Your task to perform on an android device: Open my contact list Image 0: 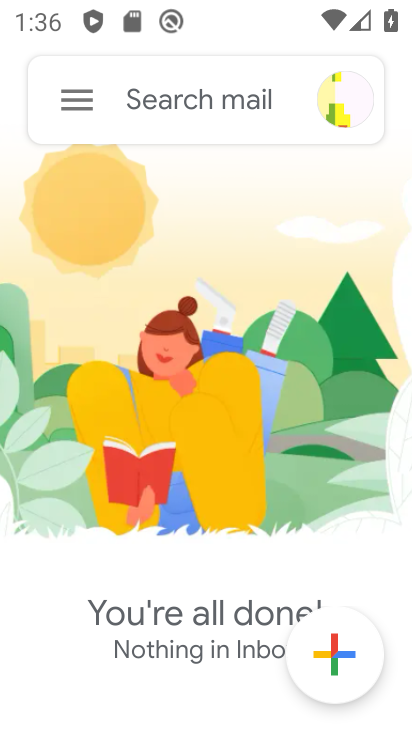
Step 0: press home button
Your task to perform on an android device: Open my contact list Image 1: 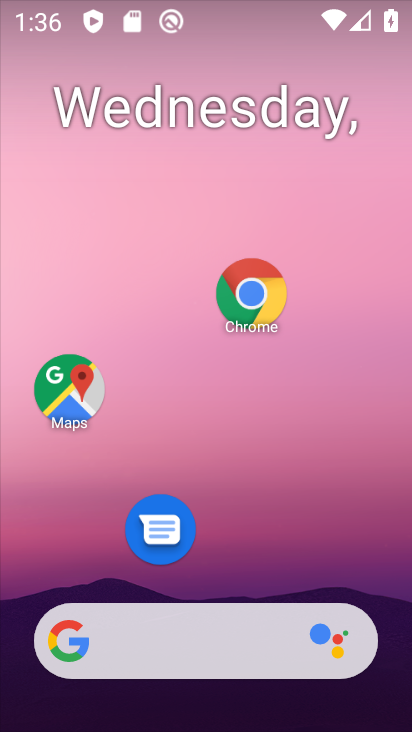
Step 1: drag from (166, 630) to (171, 180)
Your task to perform on an android device: Open my contact list Image 2: 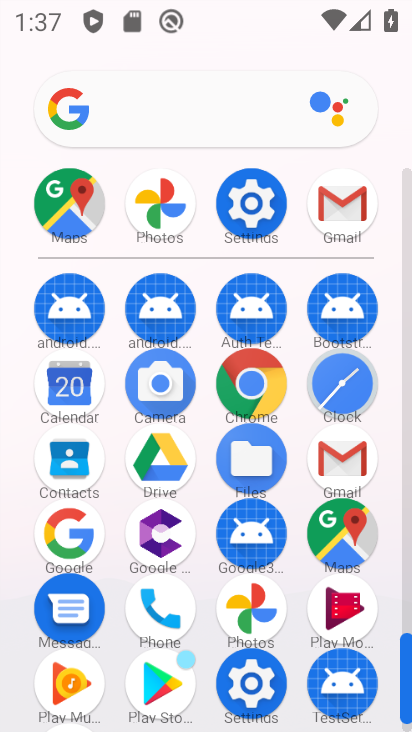
Step 2: click (79, 474)
Your task to perform on an android device: Open my contact list Image 3: 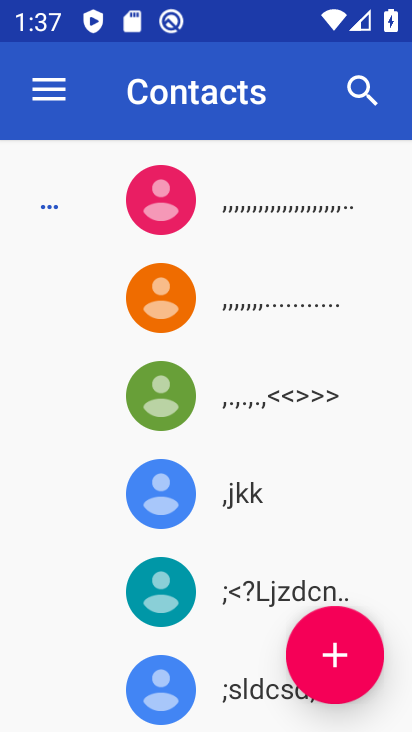
Step 3: task complete